Your task to perform on an android device: read, delete, or share a saved page in the chrome app Image 0: 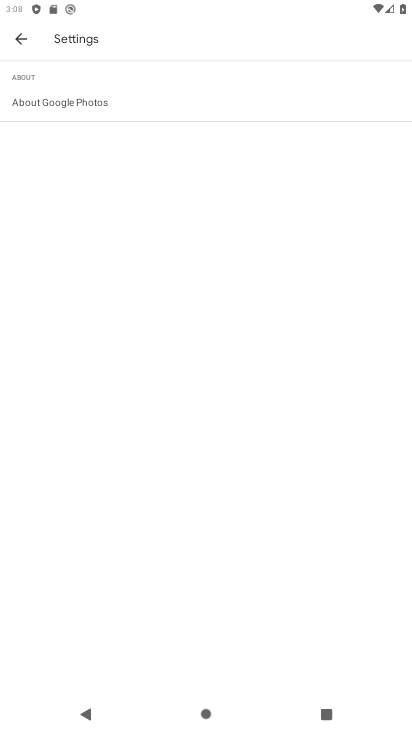
Step 0: press home button
Your task to perform on an android device: read, delete, or share a saved page in the chrome app Image 1: 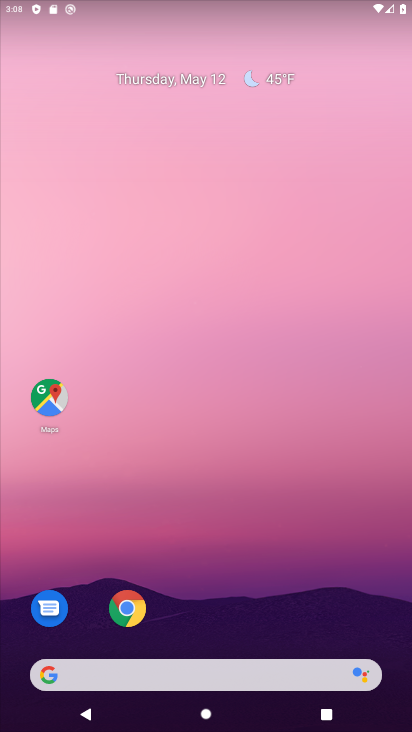
Step 1: click (128, 608)
Your task to perform on an android device: read, delete, or share a saved page in the chrome app Image 2: 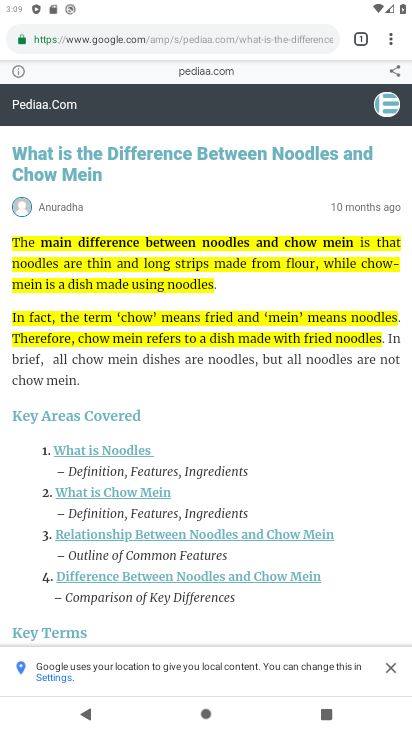
Step 2: click (384, 26)
Your task to perform on an android device: read, delete, or share a saved page in the chrome app Image 3: 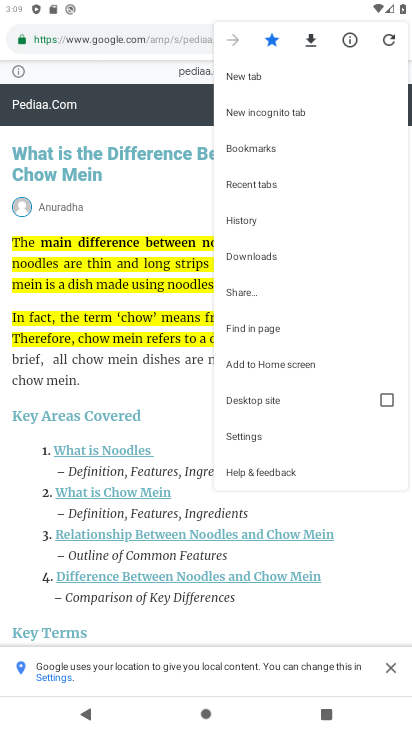
Step 3: click (296, 267)
Your task to perform on an android device: read, delete, or share a saved page in the chrome app Image 4: 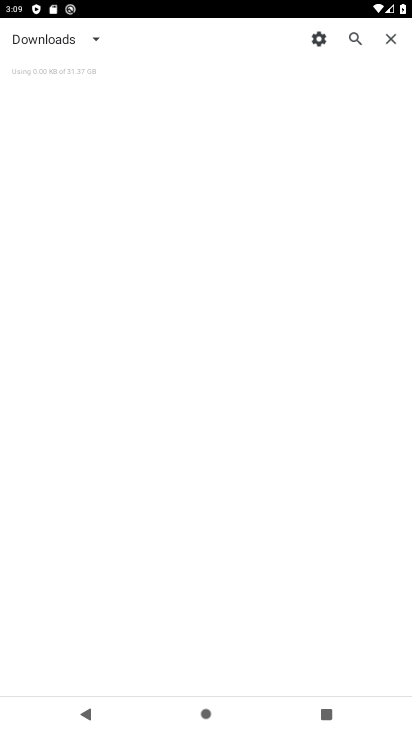
Step 4: task complete